Your task to perform on an android device: Search for vegetarian restaurants on Maps Image 0: 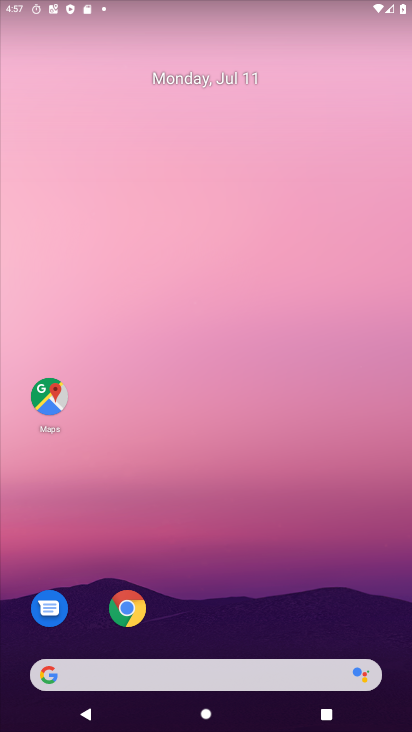
Step 0: drag from (258, 379) to (268, 99)
Your task to perform on an android device: Search for vegetarian restaurants on Maps Image 1: 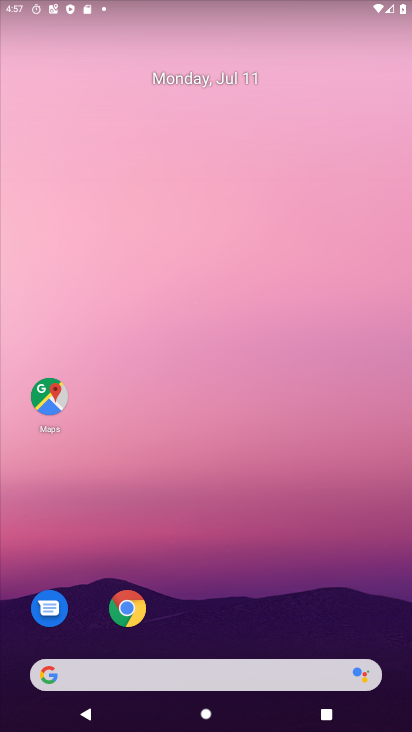
Step 1: drag from (296, 422) to (293, 0)
Your task to perform on an android device: Search for vegetarian restaurants on Maps Image 2: 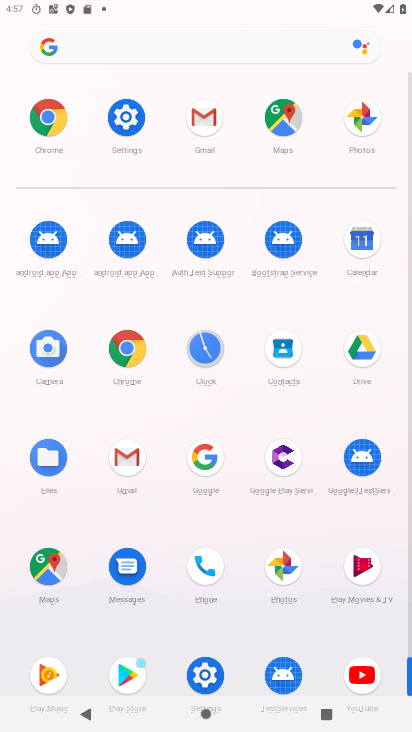
Step 2: click (44, 568)
Your task to perform on an android device: Search for vegetarian restaurants on Maps Image 3: 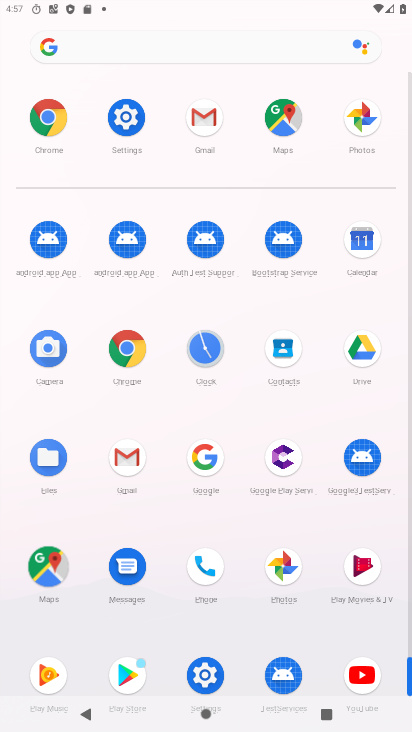
Step 3: click (46, 567)
Your task to perform on an android device: Search for vegetarian restaurants on Maps Image 4: 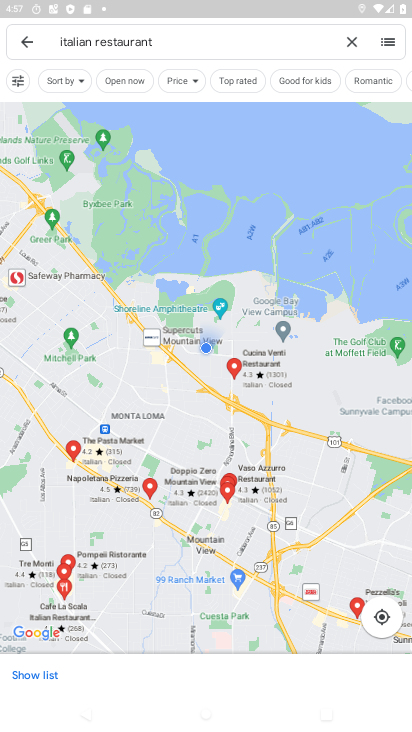
Step 4: task complete